Your task to perform on an android device: turn off location history Image 0: 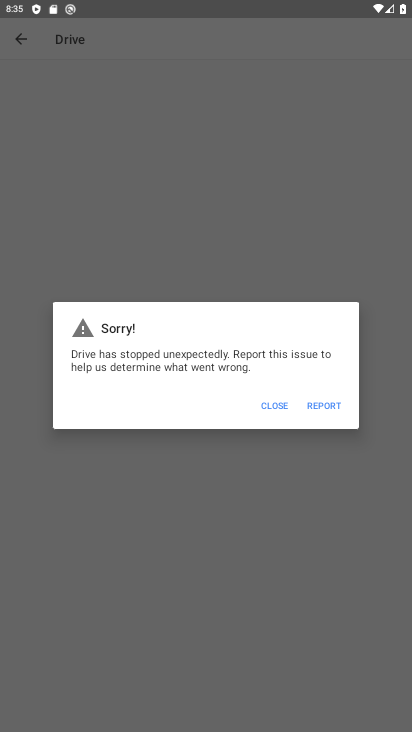
Step 0: press home button
Your task to perform on an android device: turn off location history Image 1: 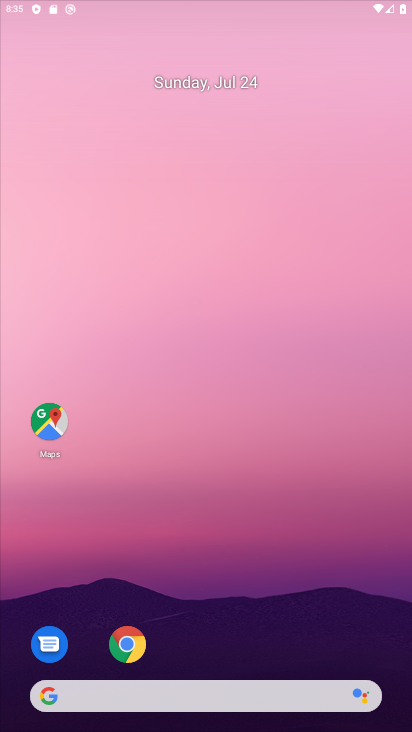
Step 1: drag from (344, 369) to (380, 50)
Your task to perform on an android device: turn off location history Image 2: 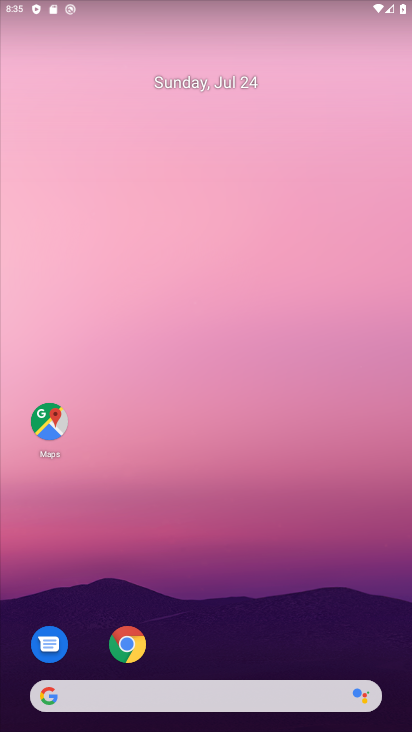
Step 2: drag from (292, 657) to (289, 7)
Your task to perform on an android device: turn off location history Image 3: 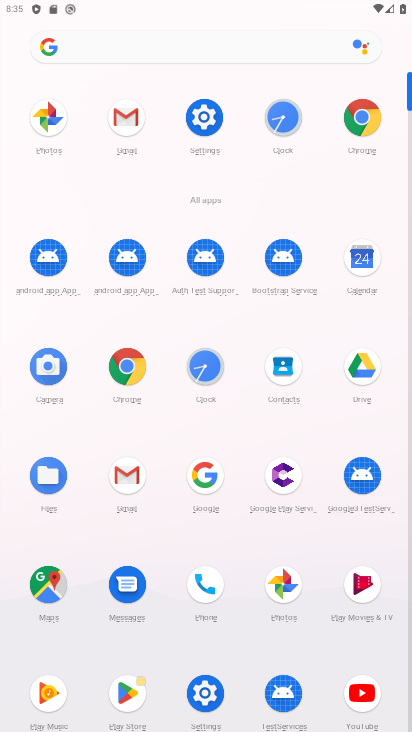
Step 3: click (44, 577)
Your task to perform on an android device: turn off location history Image 4: 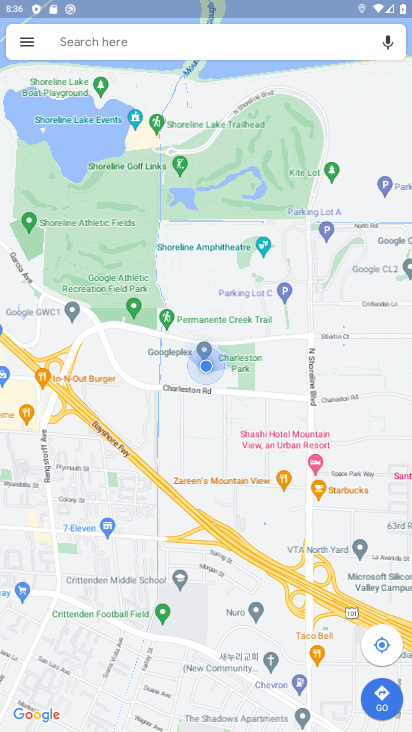
Step 4: click (25, 38)
Your task to perform on an android device: turn off location history Image 5: 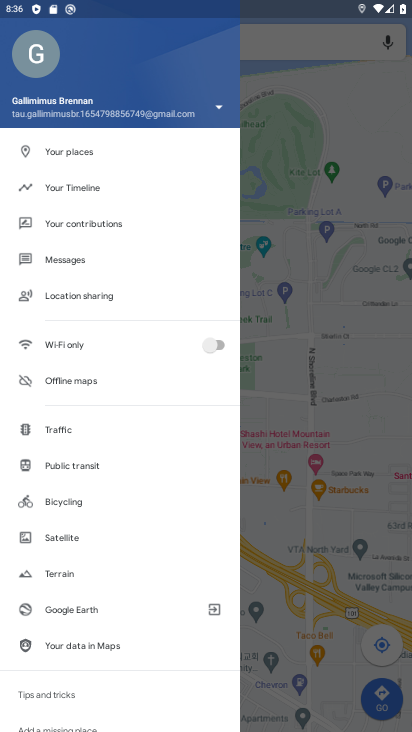
Step 5: click (66, 189)
Your task to perform on an android device: turn off location history Image 6: 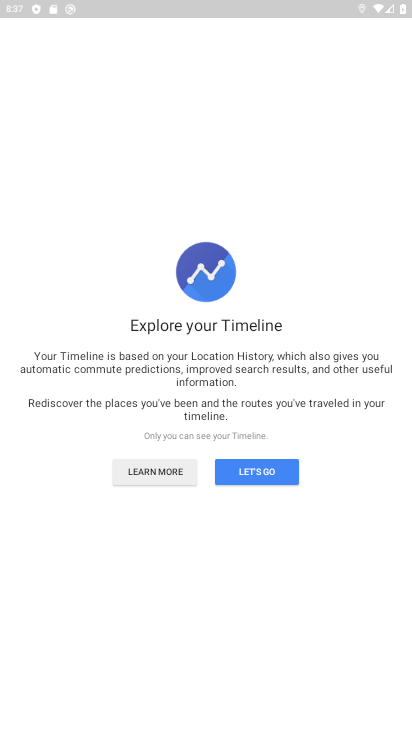
Step 6: click (270, 463)
Your task to perform on an android device: turn off location history Image 7: 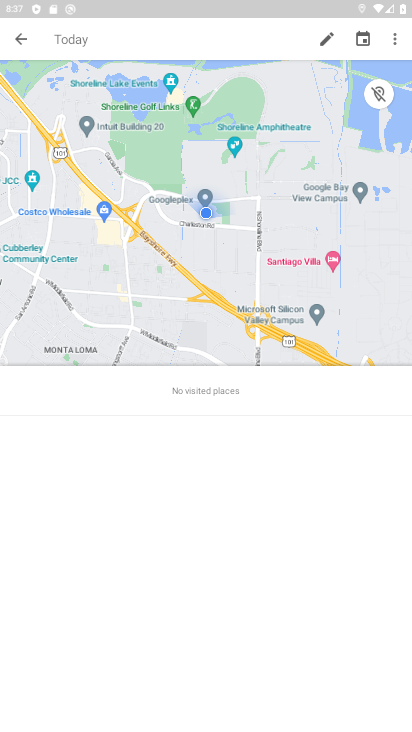
Step 7: click (394, 33)
Your task to perform on an android device: turn off location history Image 8: 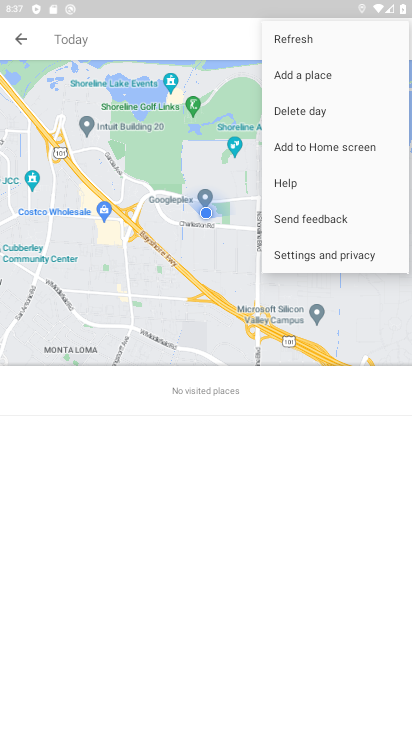
Step 8: click (326, 248)
Your task to perform on an android device: turn off location history Image 9: 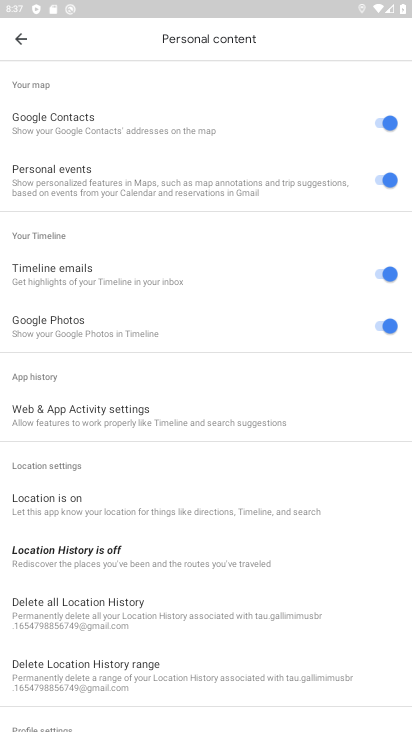
Step 9: click (77, 551)
Your task to perform on an android device: turn off location history Image 10: 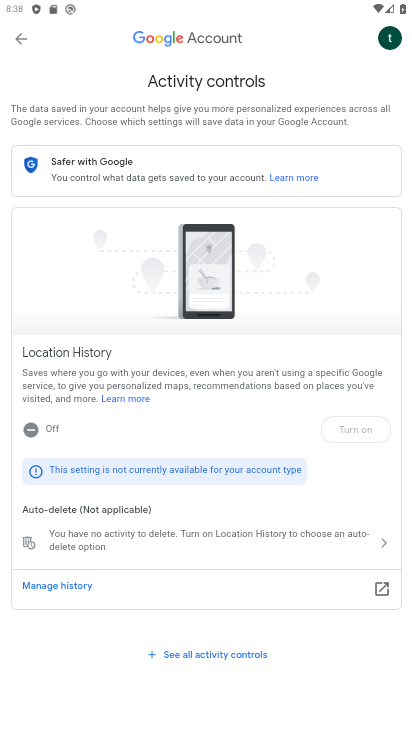
Step 10: task complete